Your task to perform on an android device: What is the news today? Image 0: 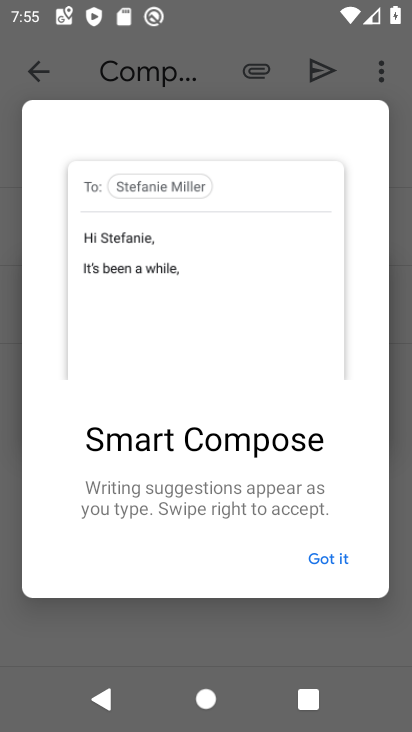
Step 0: press home button
Your task to perform on an android device: What is the news today? Image 1: 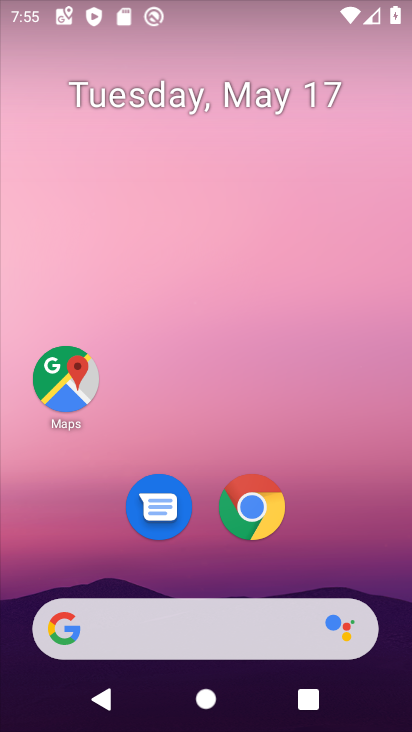
Step 1: click (155, 630)
Your task to perform on an android device: What is the news today? Image 2: 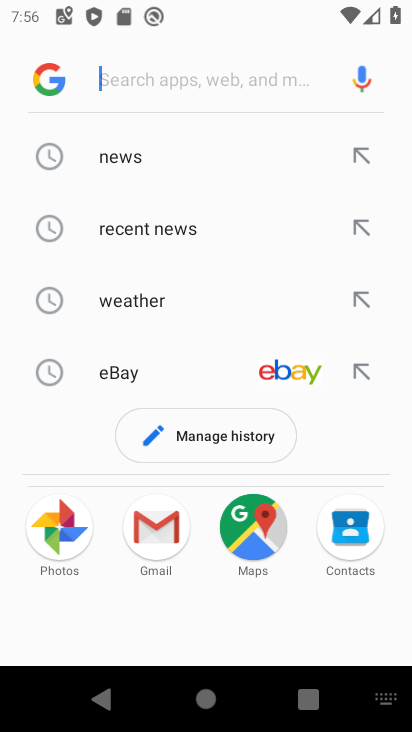
Step 2: type "news today"
Your task to perform on an android device: What is the news today? Image 3: 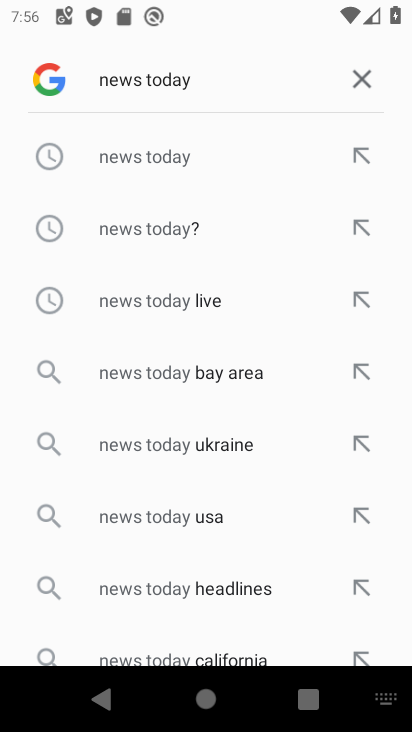
Step 3: click (143, 171)
Your task to perform on an android device: What is the news today? Image 4: 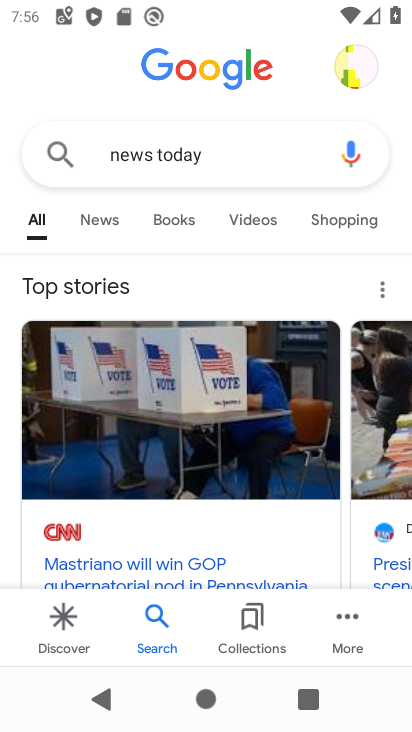
Step 4: drag from (171, 481) to (163, 313)
Your task to perform on an android device: What is the news today? Image 5: 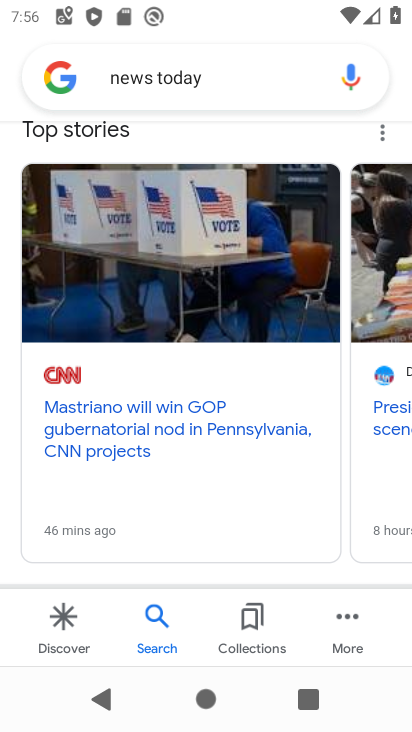
Step 5: drag from (186, 525) to (169, 134)
Your task to perform on an android device: What is the news today? Image 6: 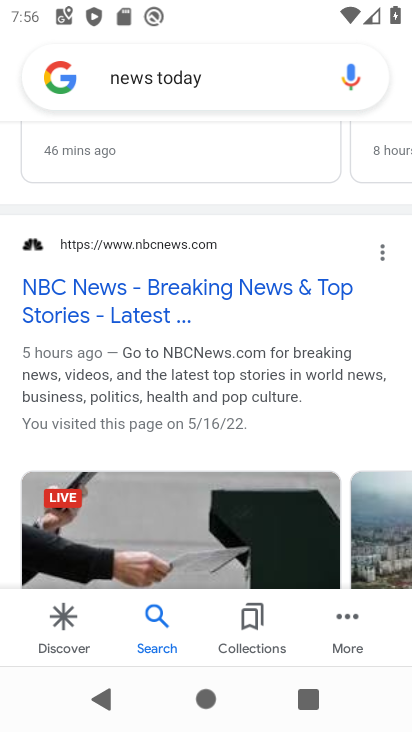
Step 6: drag from (198, 230) to (186, 571)
Your task to perform on an android device: What is the news today? Image 7: 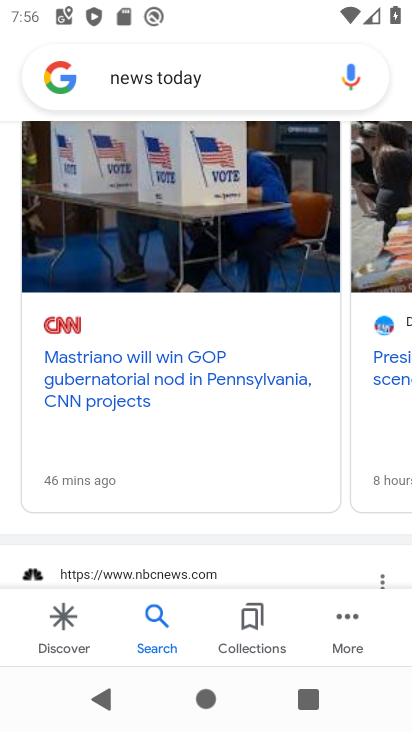
Step 7: drag from (145, 219) to (165, 513)
Your task to perform on an android device: What is the news today? Image 8: 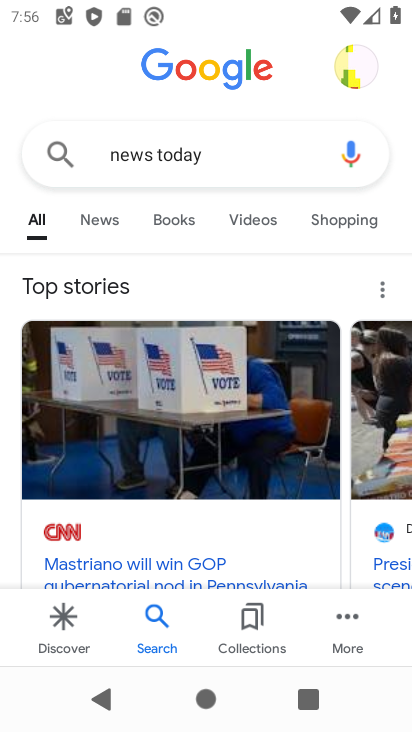
Step 8: click (92, 223)
Your task to perform on an android device: What is the news today? Image 9: 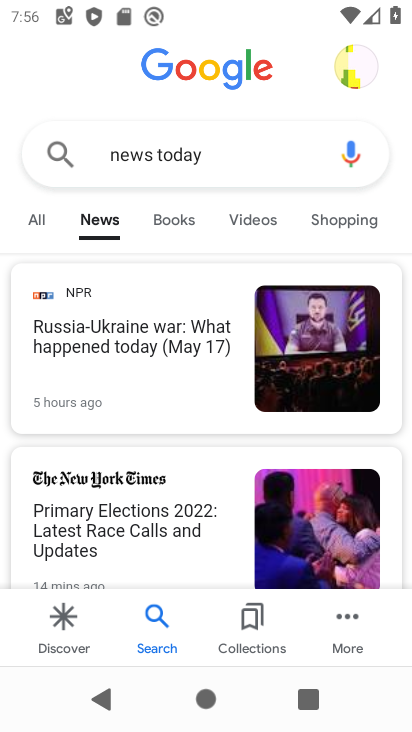
Step 9: drag from (178, 499) to (180, 232)
Your task to perform on an android device: What is the news today? Image 10: 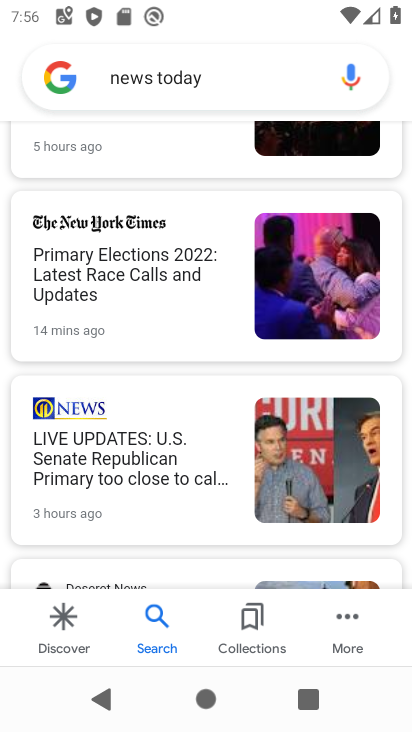
Step 10: click (90, 258)
Your task to perform on an android device: What is the news today? Image 11: 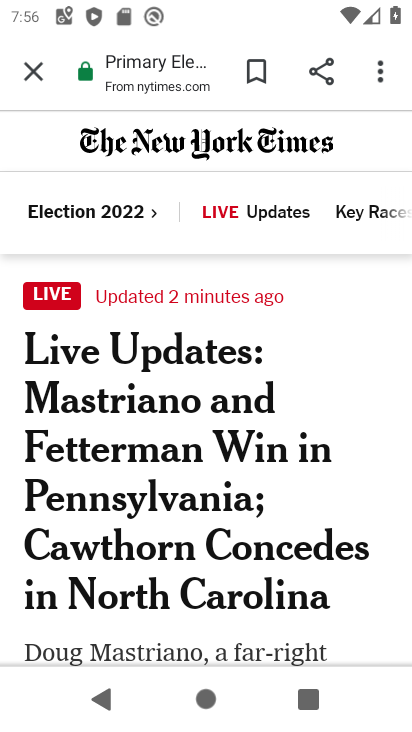
Step 11: task complete